Your task to perform on an android device: check battery use Image 0: 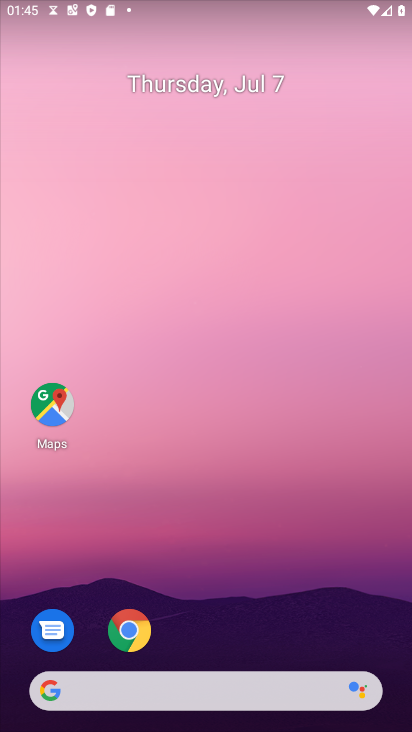
Step 0: drag from (243, 637) to (219, 117)
Your task to perform on an android device: check battery use Image 1: 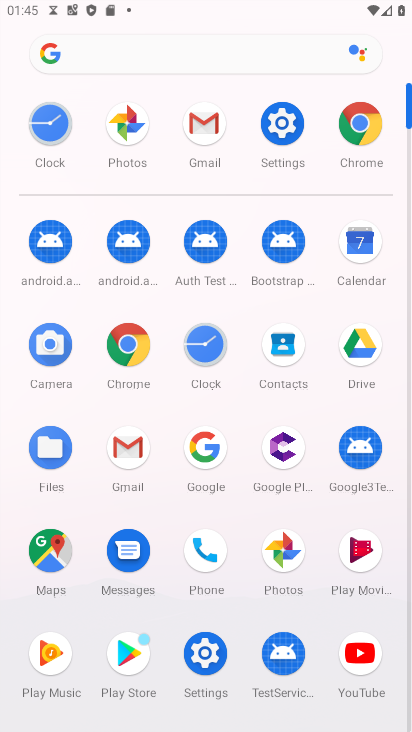
Step 1: click (293, 120)
Your task to perform on an android device: check battery use Image 2: 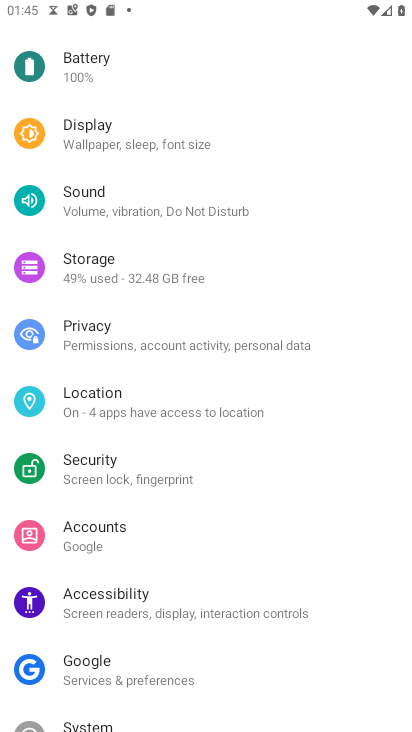
Step 2: click (224, 66)
Your task to perform on an android device: check battery use Image 3: 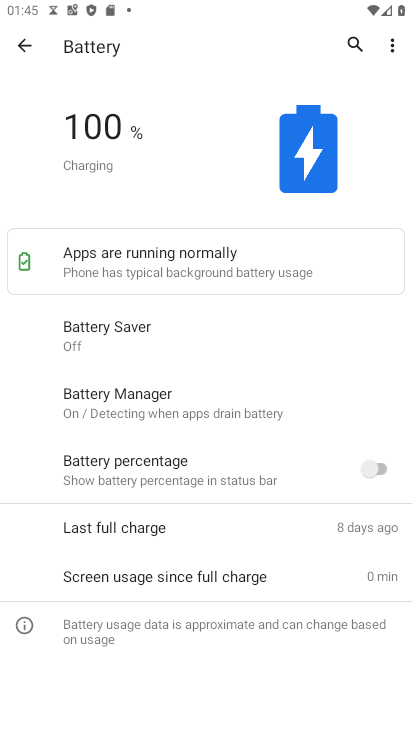
Step 3: click (391, 51)
Your task to perform on an android device: check battery use Image 4: 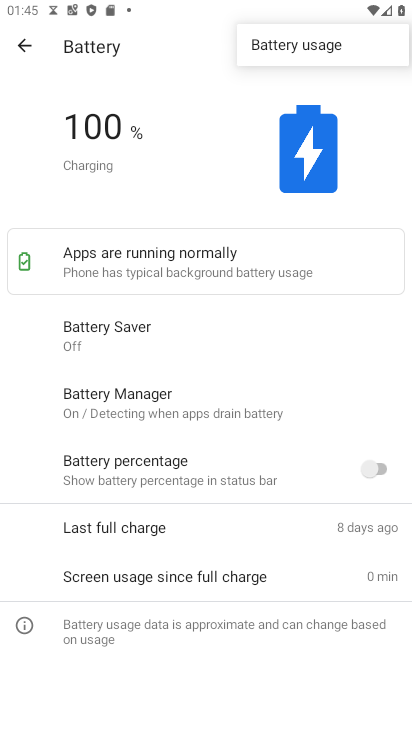
Step 4: click (342, 43)
Your task to perform on an android device: check battery use Image 5: 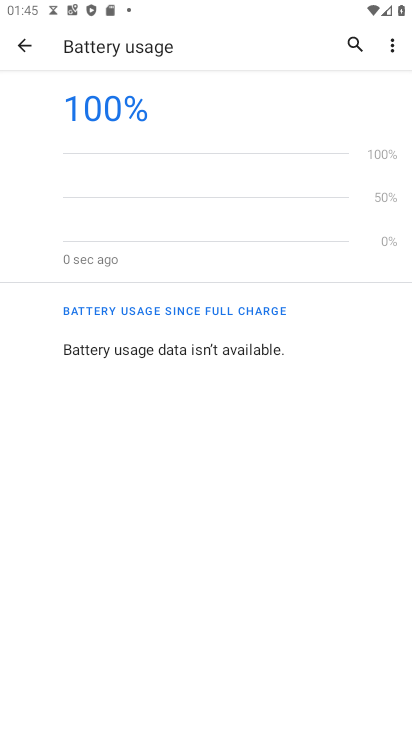
Step 5: task complete